Your task to perform on an android device: turn on translation in the chrome app Image 0: 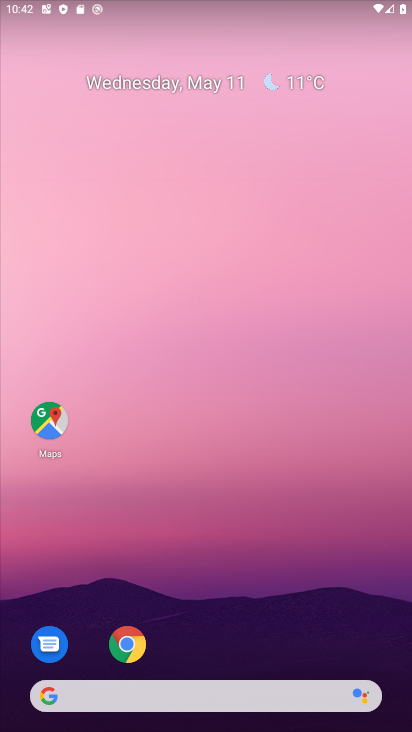
Step 0: click (125, 653)
Your task to perform on an android device: turn on translation in the chrome app Image 1: 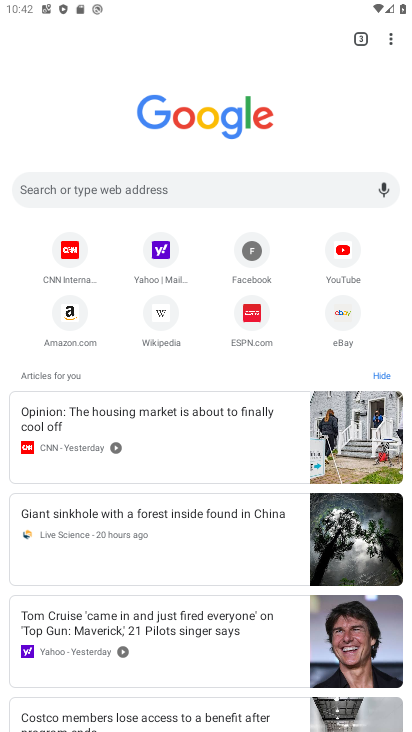
Step 1: click (390, 35)
Your task to perform on an android device: turn on translation in the chrome app Image 2: 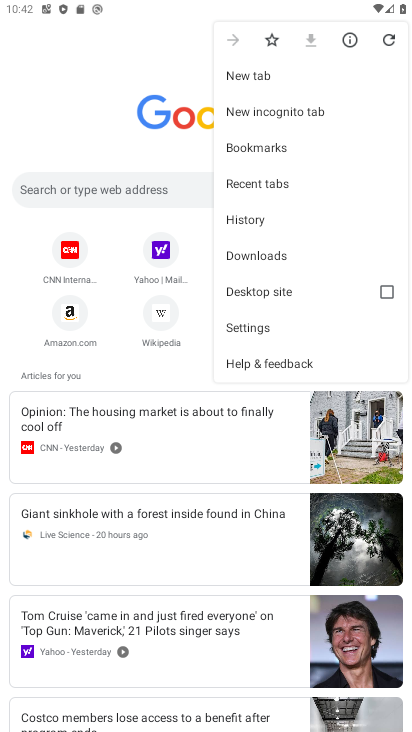
Step 2: click (236, 331)
Your task to perform on an android device: turn on translation in the chrome app Image 3: 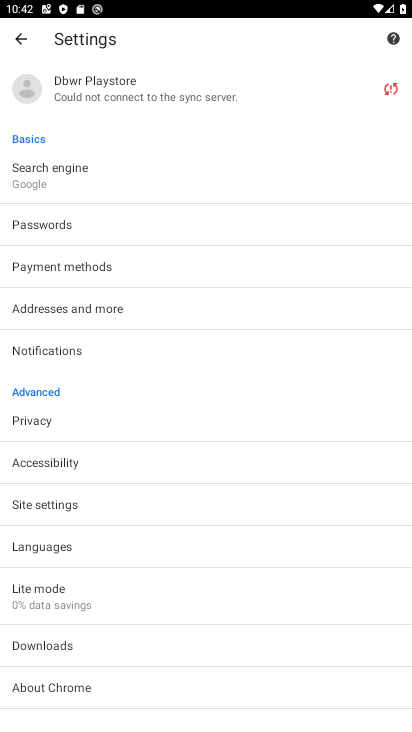
Step 3: click (70, 550)
Your task to perform on an android device: turn on translation in the chrome app Image 4: 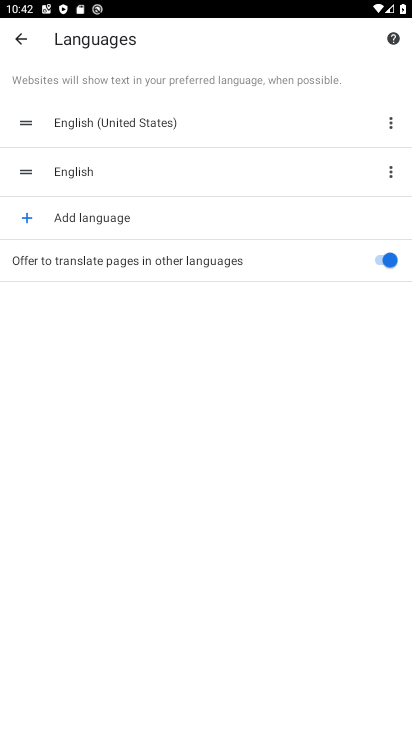
Step 4: task complete